Your task to perform on an android device: Go to CNN.com Image 0: 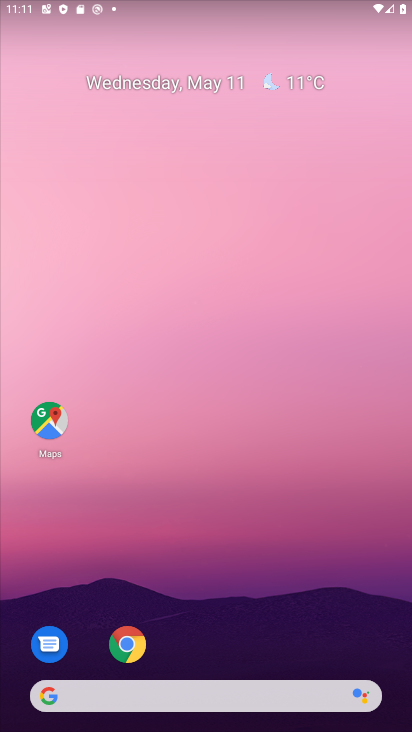
Step 0: drag from (213, 659) to (224, 148)
Your task to perform on an android device: Go to CNN.com Image 1: 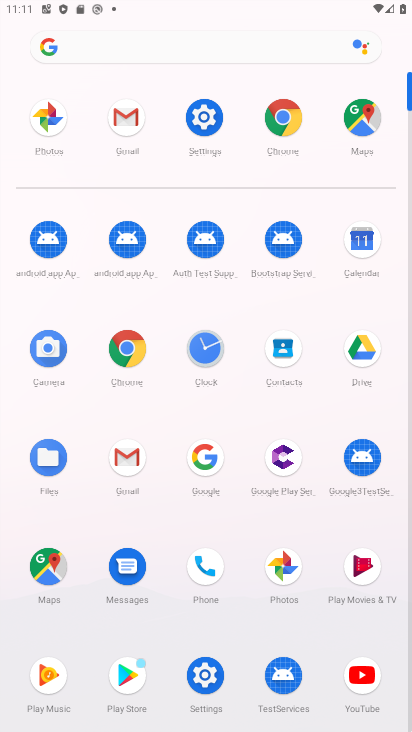
Step 1: click (125, 345)
Your task to perform on an android device: Go to CNN.com Image 2: 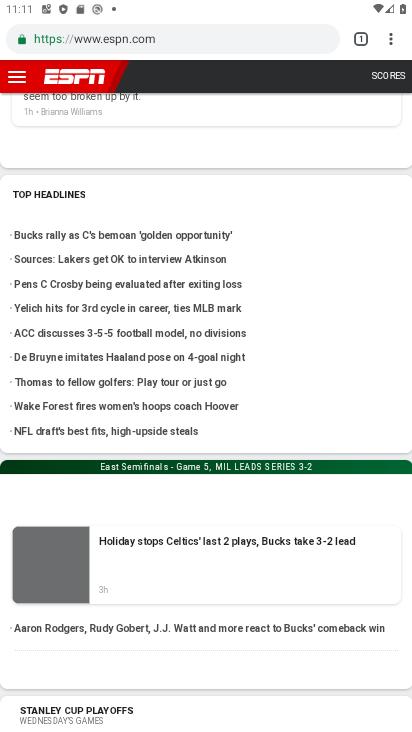
Step 2: click (362, 40)
Your task to perform on an android device: Go to CNN.com Image 3: 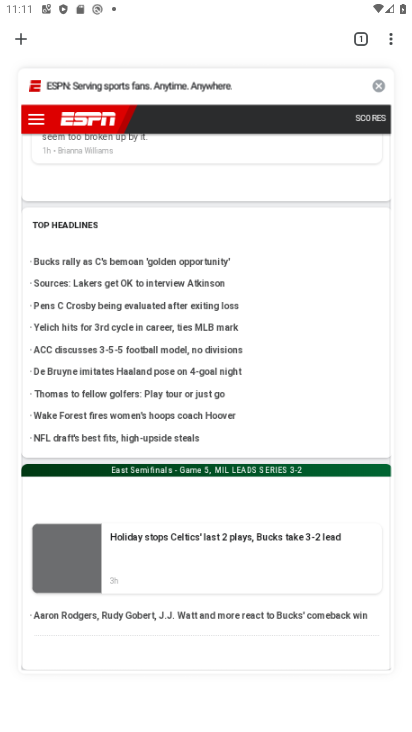
Step 3: click (17, 34)
Your task to perform on an android device: Go to CNN.com Image 4: 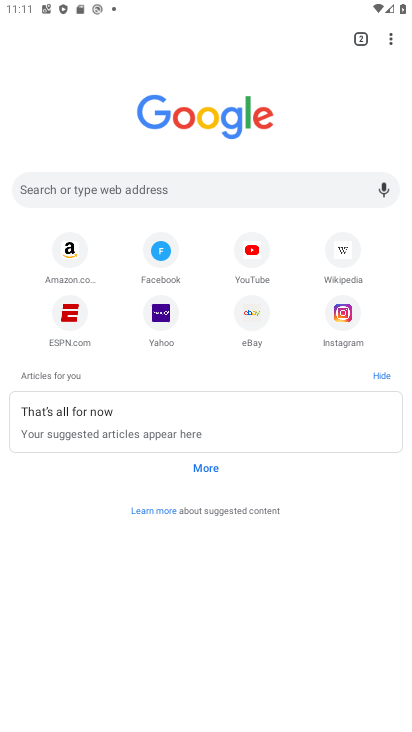
Step 4: click (120, 183)
Your task to perform on an android device: Go to CNN.com Image 5: 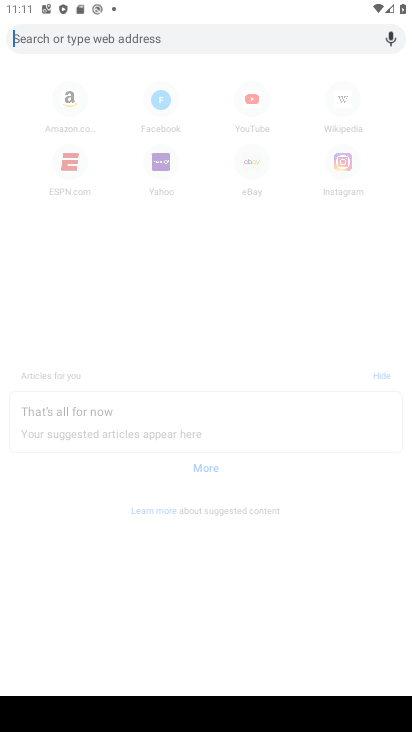
Step 5: type "cnn.com"
Your task to perform on an android device: Go to CNN.com Image 6: 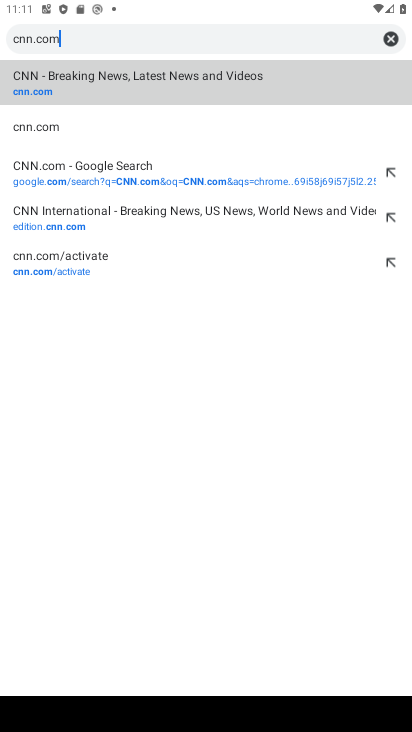
Step 6: click (80, 82)
Your task to perform on an android device: Go to CNN.com Image 7: 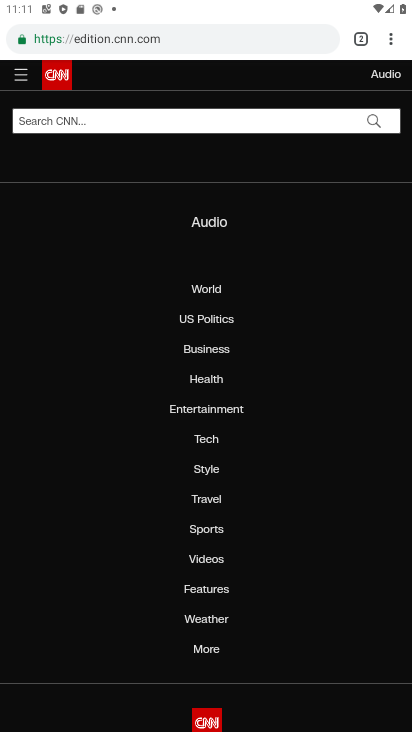
Step 7: drag from (239, 575) to (240, 179)
Your task to perform on an android device: Go to CNN.com Image 8: 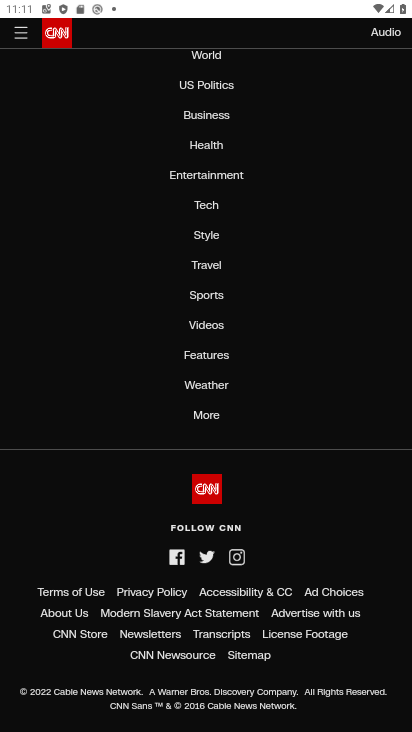
Step 8: drag from (235, 652) to (222, 227)
Your task to perform on an android device: Go to CNN.com Image 9: 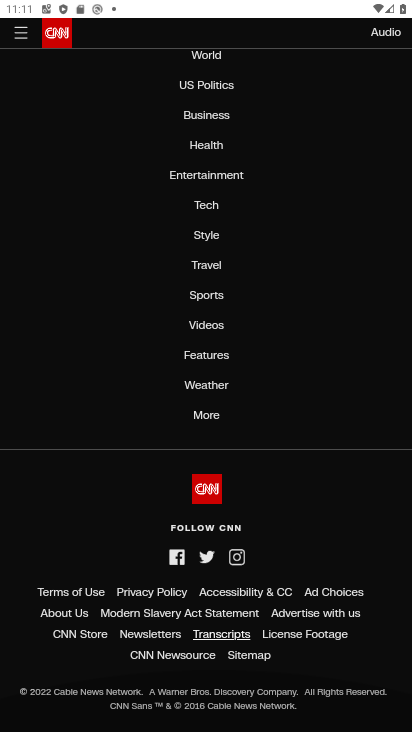
Step 9: click (220, 195)
Your task to perform on an android device: Go to CNN.com Image 10: 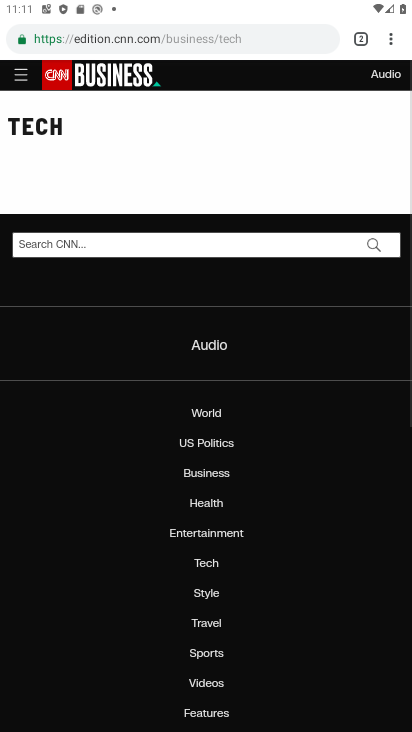
Step 10: task complete